Your task to perform on an android device: snooze an email in the gmail app Image 0: 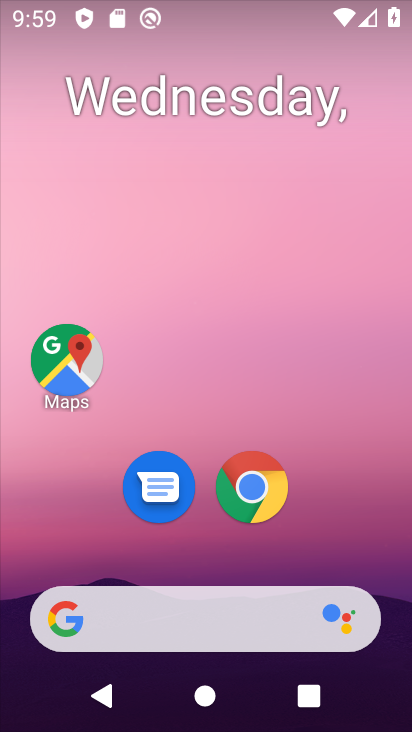
Step 0: drag from (149, 597) to (191, 106)
Your task to perform on an android device: snooze an email in the gmail app Image 1: 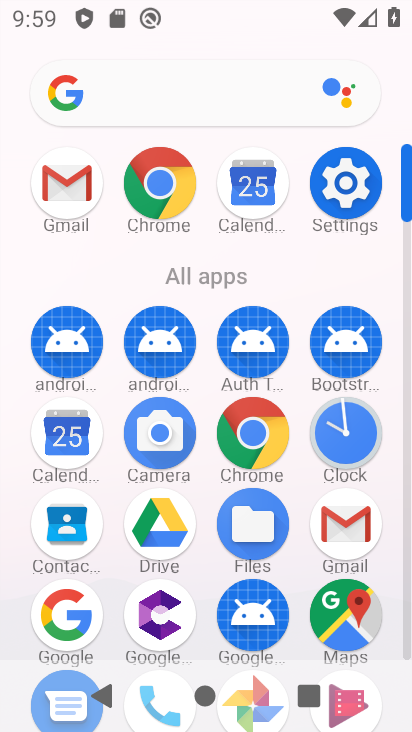
Step 1: click (79, 185)
Your task to perform on an android device: snooze an email in the gmail app Image 2: 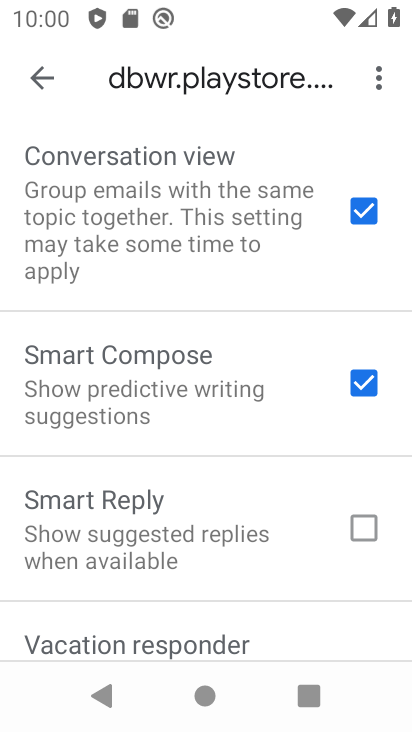
Step 2: click (38, 81)
Your task to perform on an android device: snooze an email in the gmail app Image 3: 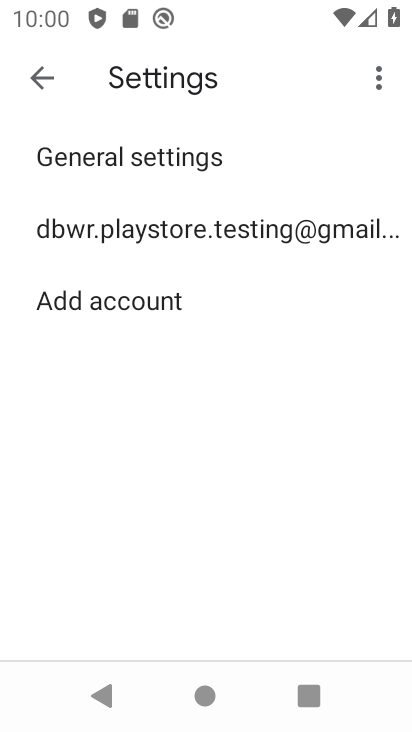
Step 3: click (39, 86)
Your task to perform on an android device: snooze an email in the gmail app Image 4: 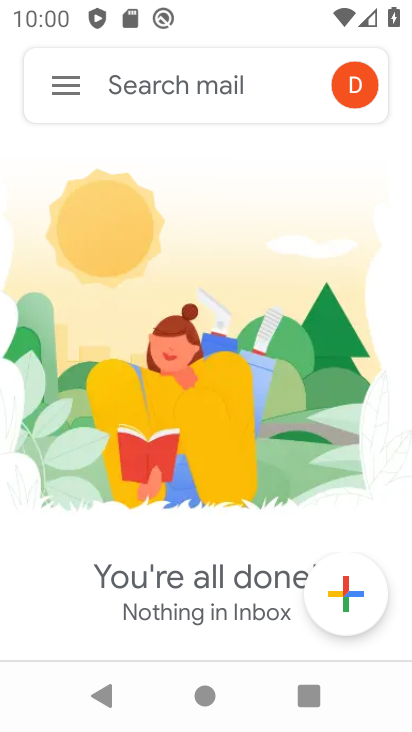
Step 4: task complete